Your task to perform on an android device: turn on the 24-hour format for clock Image 0: 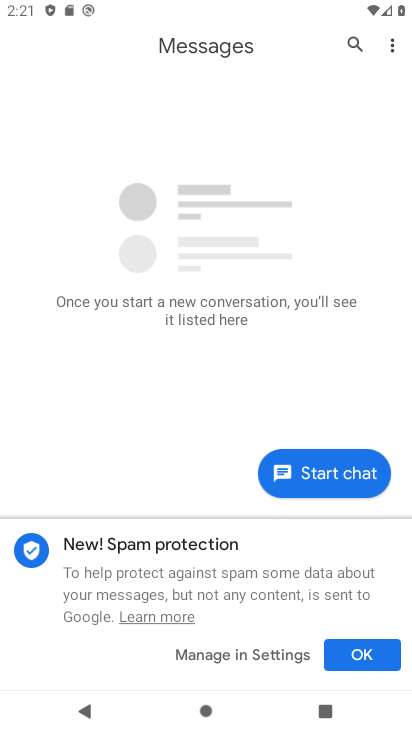
Step 0: press home button
Your task to perform on an android device: turn on the 24-hour format for clock Image 1: 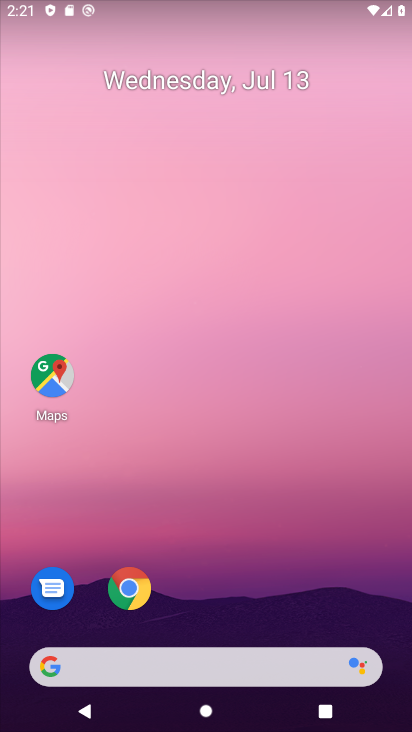
Step 1: drag from (317, 577) to (297, 98)
Your task to perform on an android device: turn on the 24-hour format for clock Image 2: 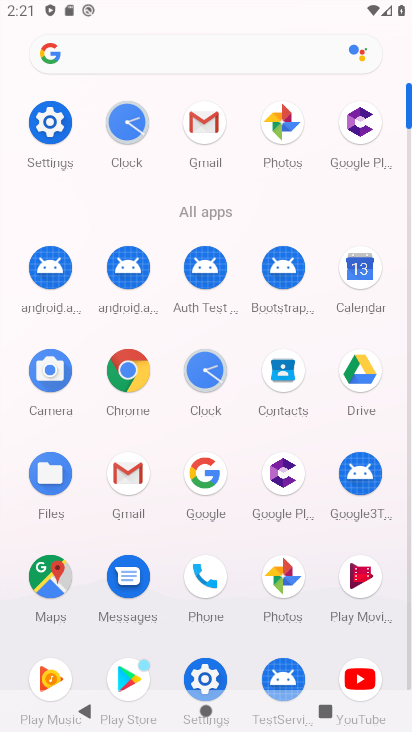
Step 2: click (210, 383)
Your task to perform on an android device: turn on the 24-hour format for clock Image 3: 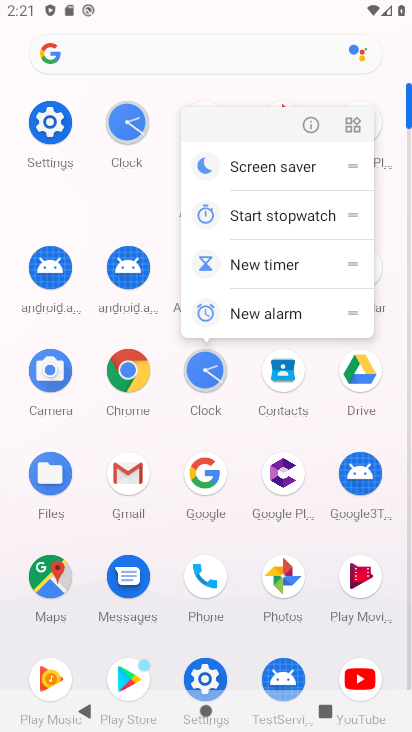
Step 3: click (210, 382)
Your task to perform on an android device: turn on the 24-hour format for clock Image 4: 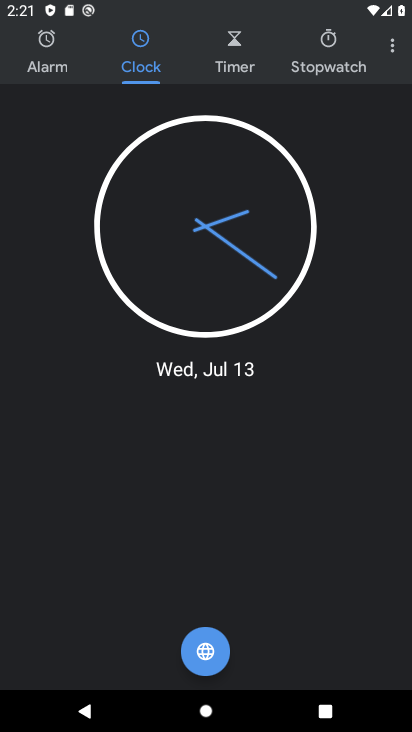
Step 4: click (387, 47)
Your task to perform on an android device: turn on the 24-hour format for clock Image 5: 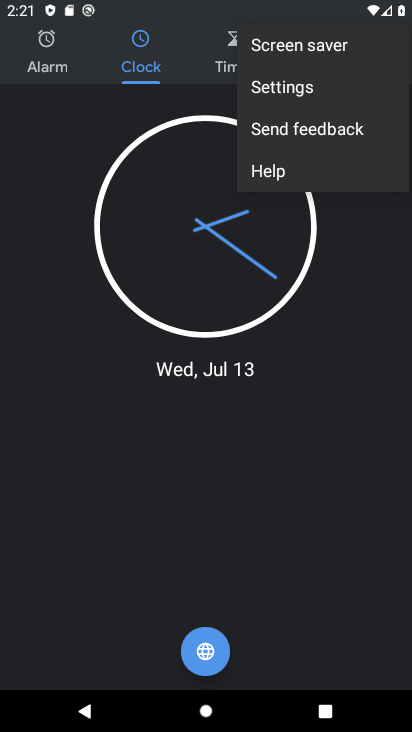
Step 5: click (307, 90)
Your task to perform on an android device: turn on the 24-hour format for clock Image 6: 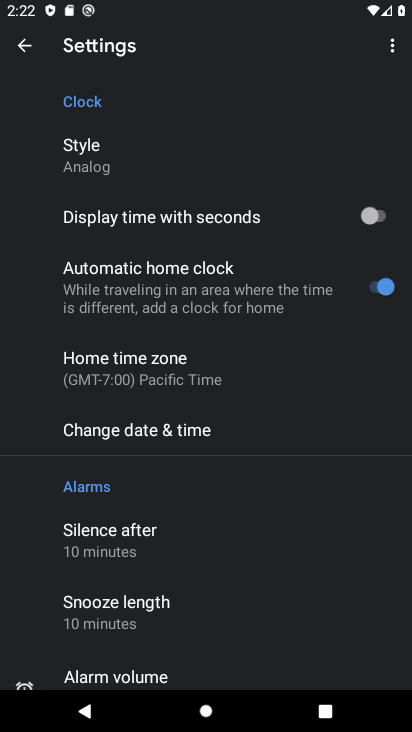
Step 6: click (186, 421)
Your task to perform on an android device: turn on the 24-hour format for clock Image 7: 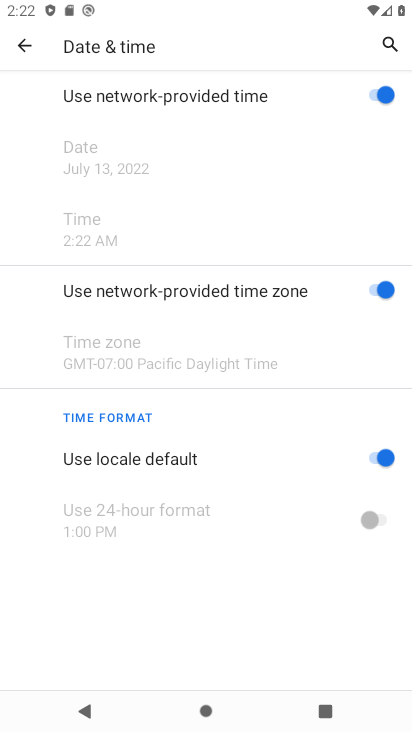
Step 7: click (377, 452)
Your task to perform on an android device: turn on the 24-hour format for clock Image 8: 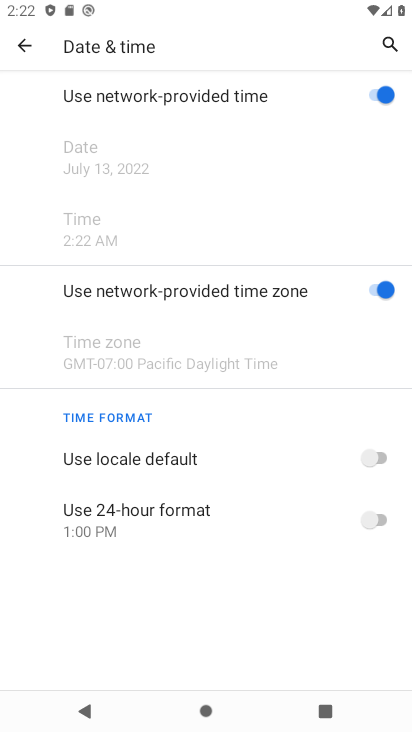
Step 8: click (382, 518)
Your task to perform on an android device: turn on the 24-hour format for clock Image 9: 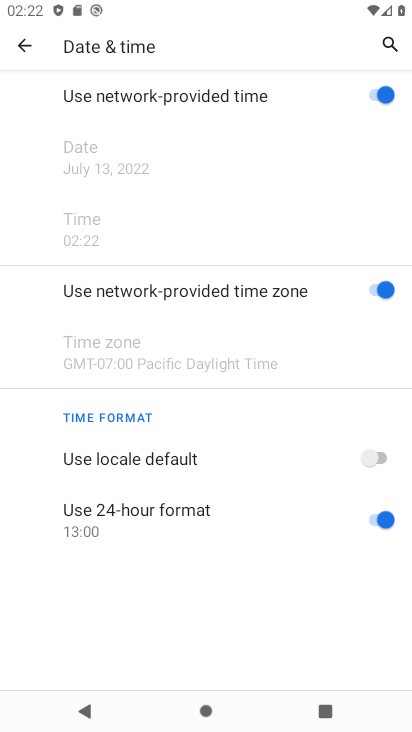
Step 9: task complete